Your task to perform on an android device: Open Google Chrome and click the shortcut for Amazon.com Image 0: 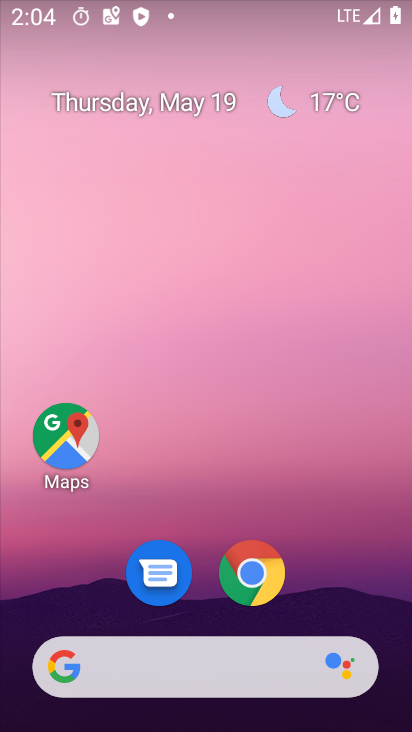
Step 0: click (245, 573)
Your task to perform on an android device: Open Google Chrome and click the shortcut for Amazon.com Image 1: 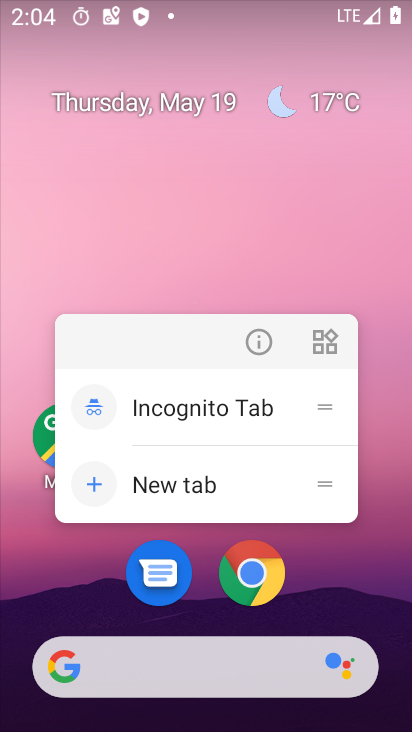
Step 1: click (247, 582)
Your task to perform on an android device: Open Google Chrome and click the shortcut for Amazon.com Image 2: 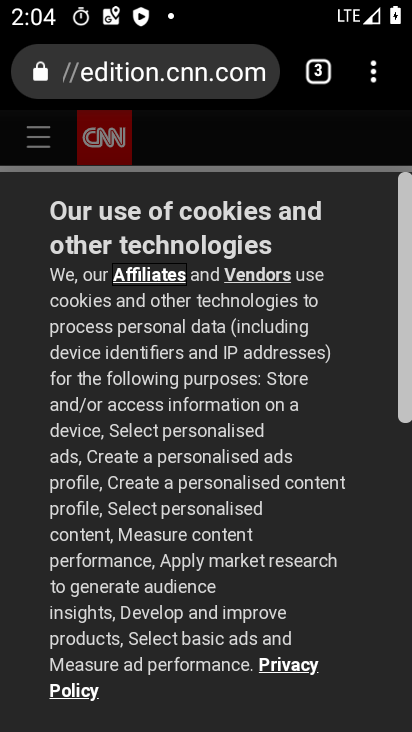
Step 2: click (319, 59)
Your task to perform on an android device: Open Google Chrome and click the shortcut for Amazon.com Image 3: 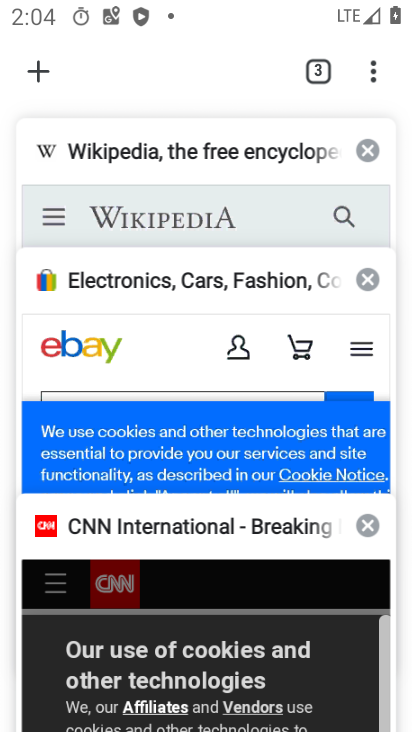
Step 3: click (47, 65)
Your task to perform on an android device: Open Google Chrome and click the shortcut for Amazon.com Image 4: 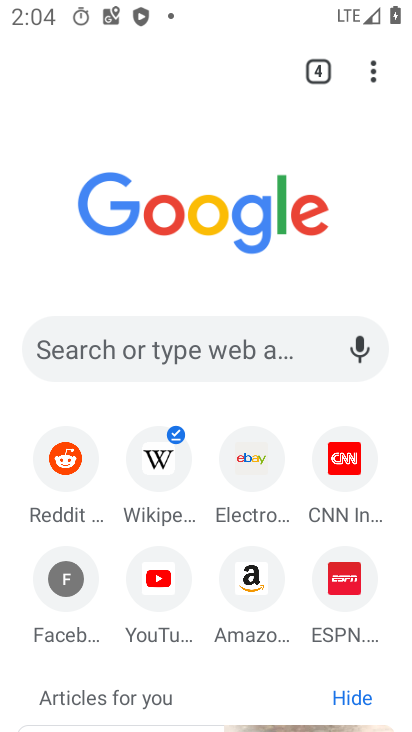
Step 4: click (258, 609)
Your task to perform on an android device: Open Google Chrome and click the shortcut for Amazon.com Image 5: 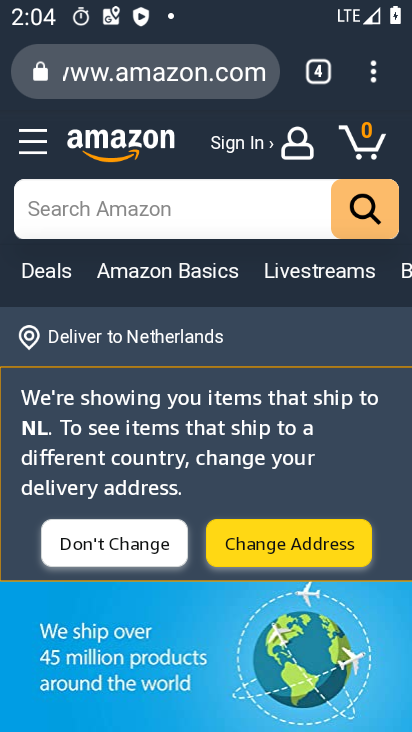
Step 5: task complete